Your task to perform on an android device: turn off notifications in google photos Image 0: 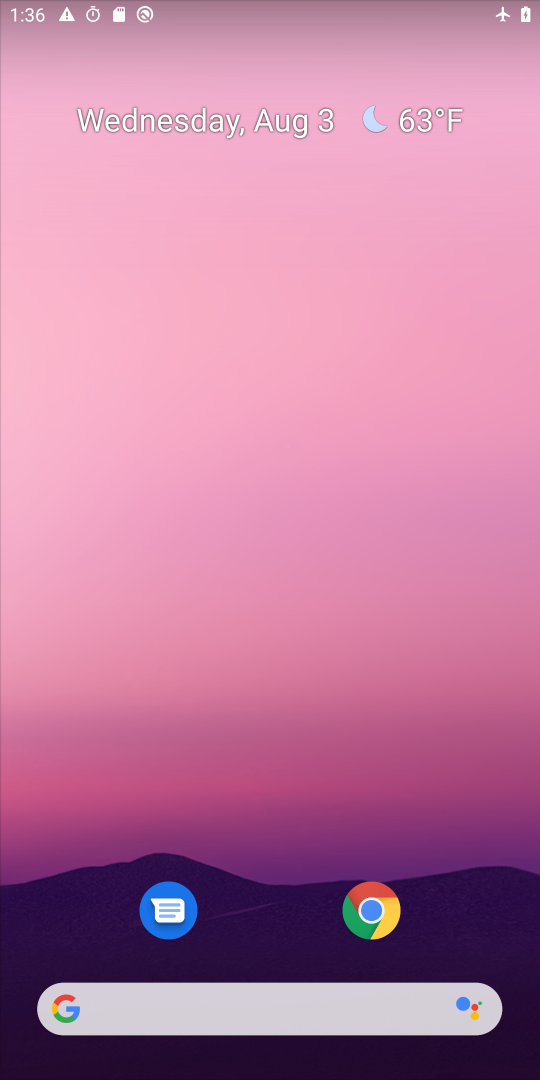
Step 0: drag from (256, 855) to (328, 23)
Your task to perform on an android device: turn off notifications in google photos Image 1: 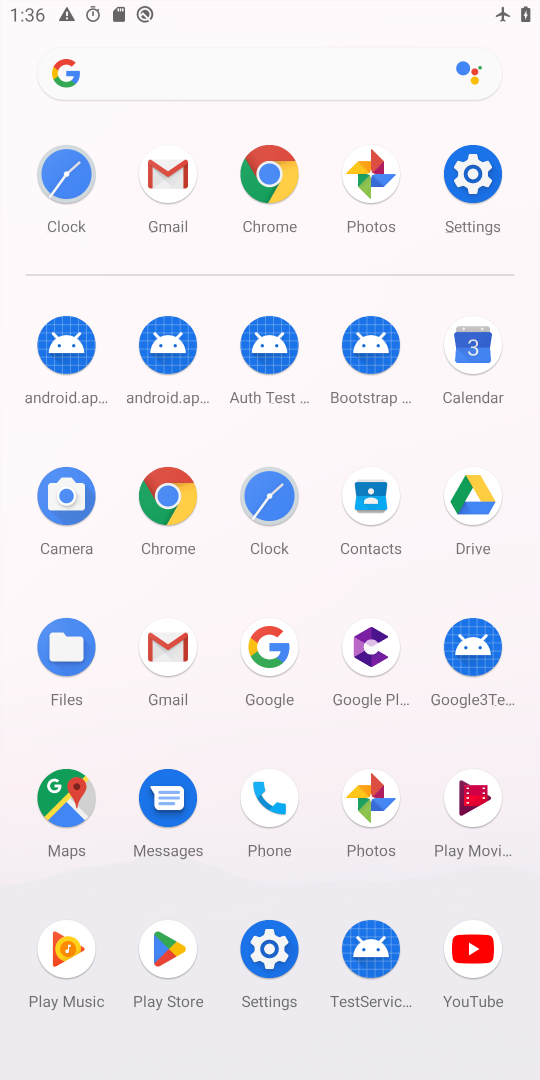
Step 1: click (385, 788)
Your task to perform on an android device: turn off notifications in google photos Image 2: 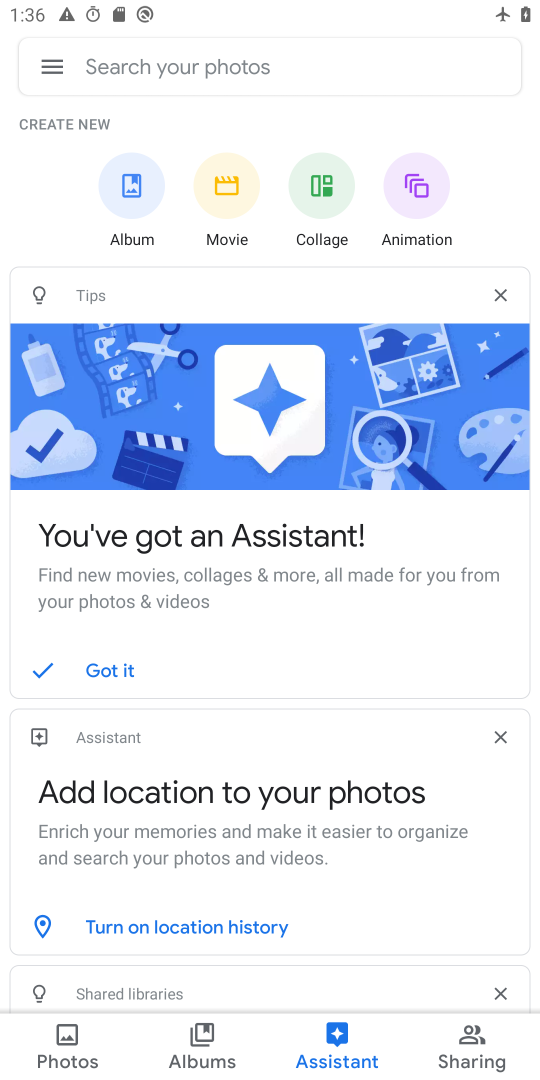
Step 2: click (40, 68)
Your task to perform on an android device: turn off notifications in google photos Image 3: 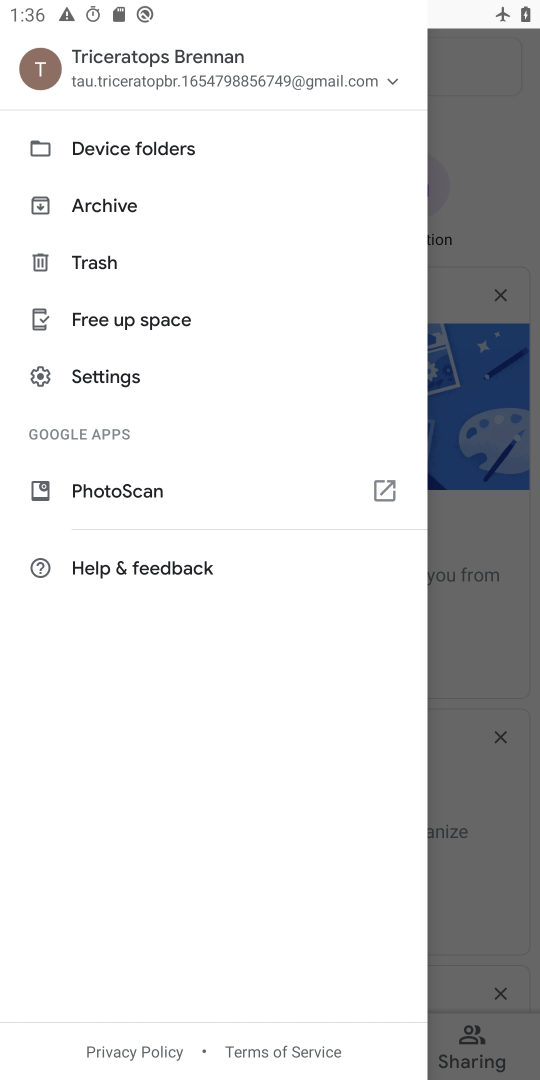
Step 3: click (123, 374)
Your task to perform on an android device: turn off notifications in google photos Image 4: 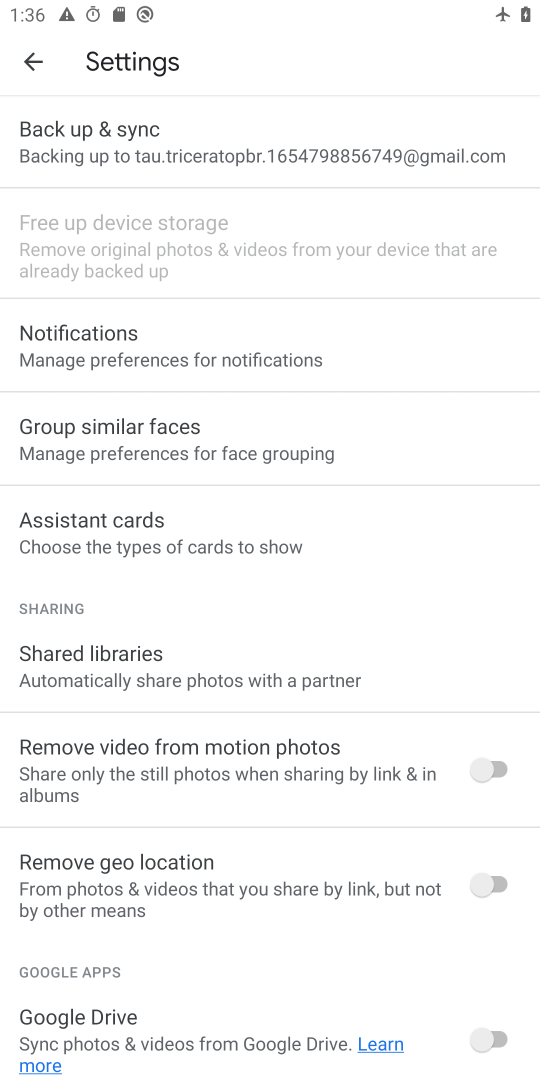
Step 4: click (160, 340)
Your task to perform on an android device: turn off notifications in google photos Image 5: 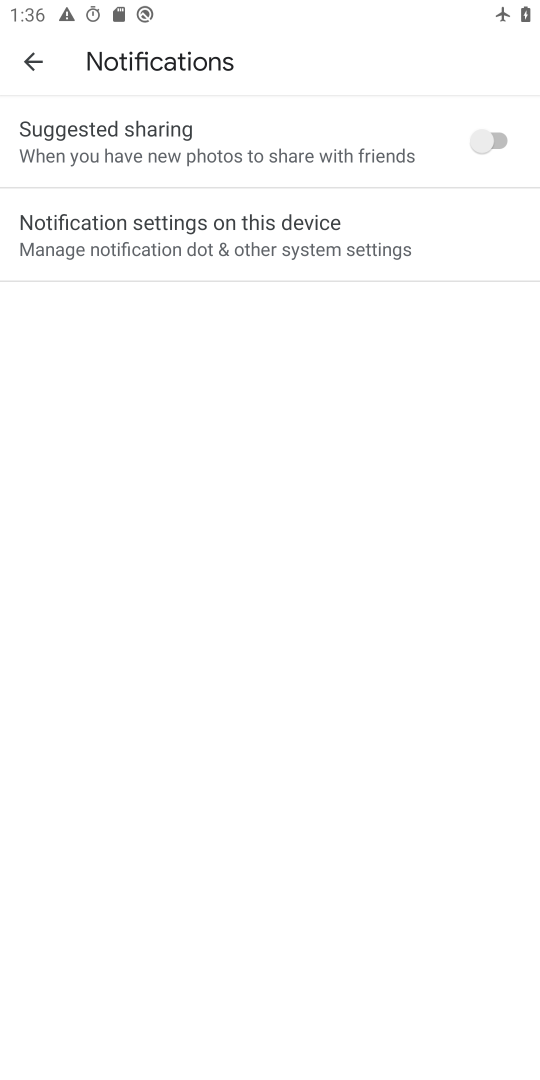
Step 5: click (334, 210)
Your task to perform on an android device: turn off notifications in google photos Image 6: 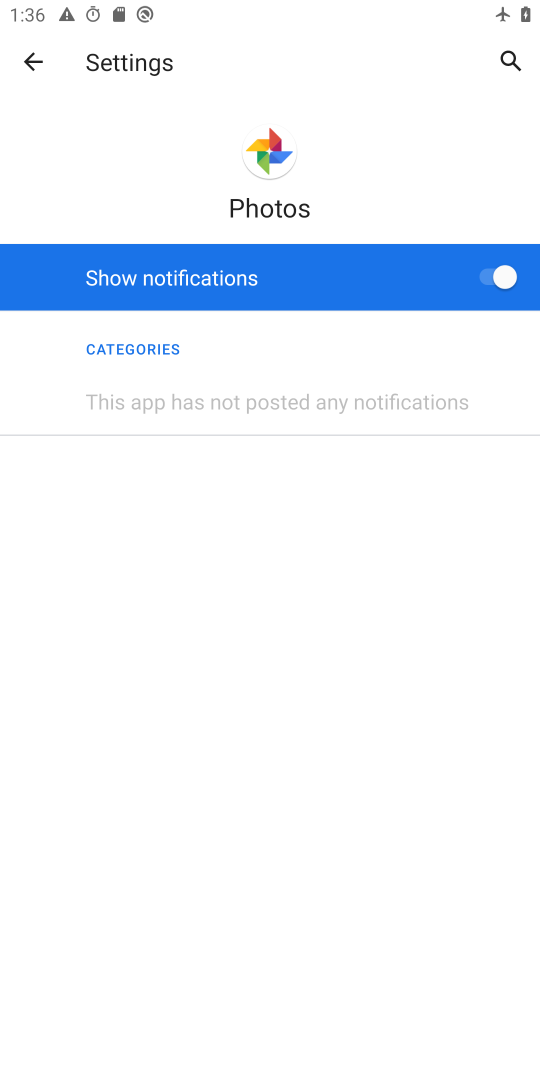
Step 6: click (498, 270)
Your task to perform on an android device: turn off notifications in google photos Image 7: 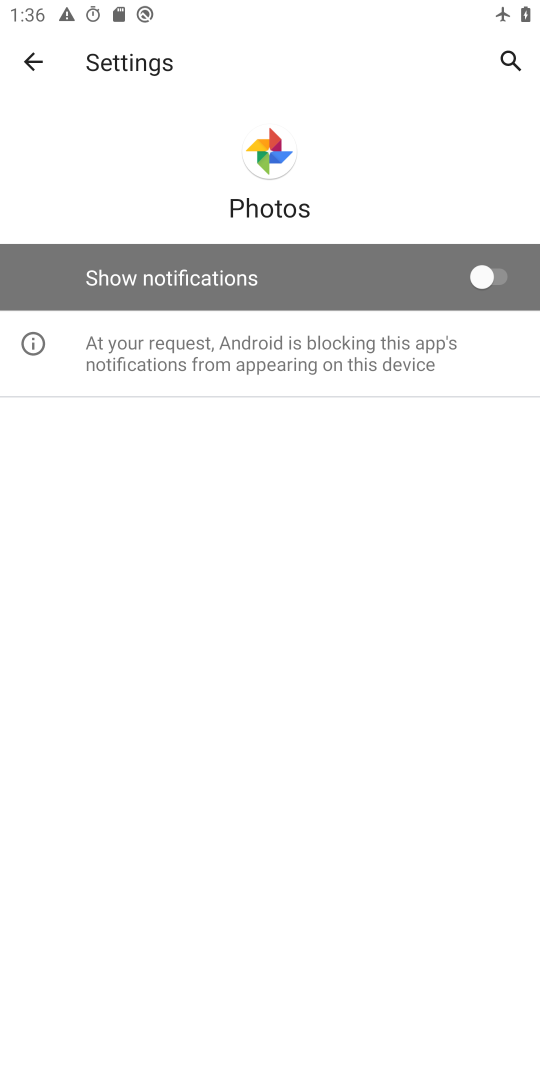
Step 7: task complete